Your task to perform on an android device: Open settings Image 0: 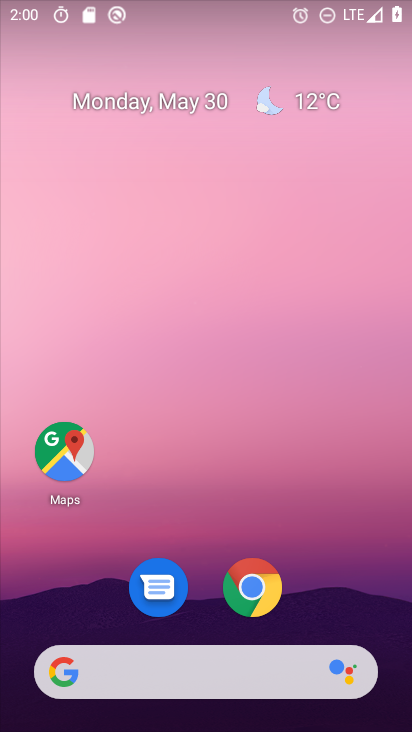
Step 0: drag from (380, 629) to (194, 12)
Your task to perform on an android device: Open settings Image 1: 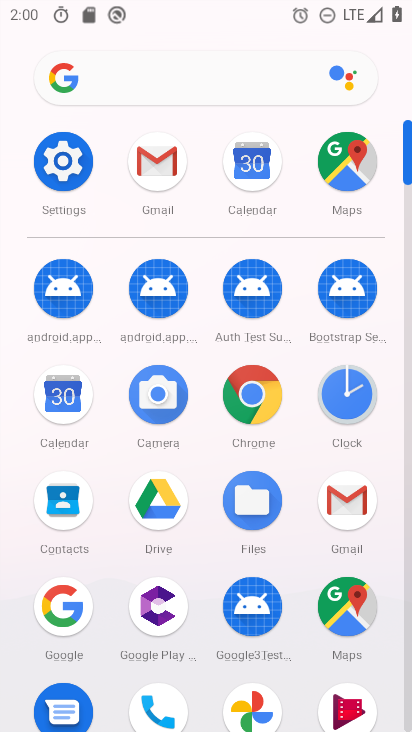
Step 1: click (76, 162)
Your task to perform on an android device: Open settings Image 2: 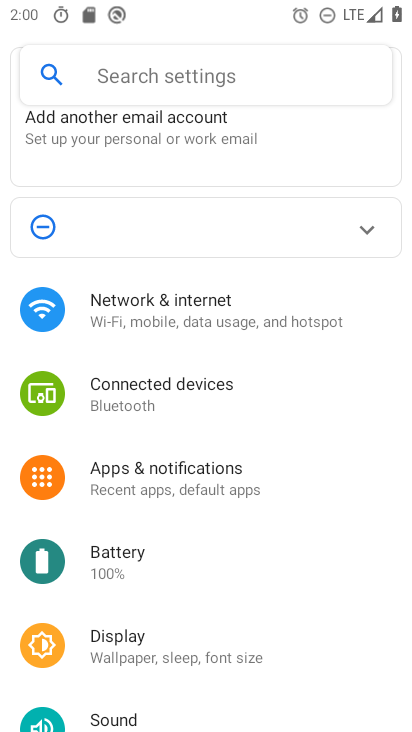
Step 2: task complete